Your task to perform on an android device: delete a single message in the gmail app Image 0: 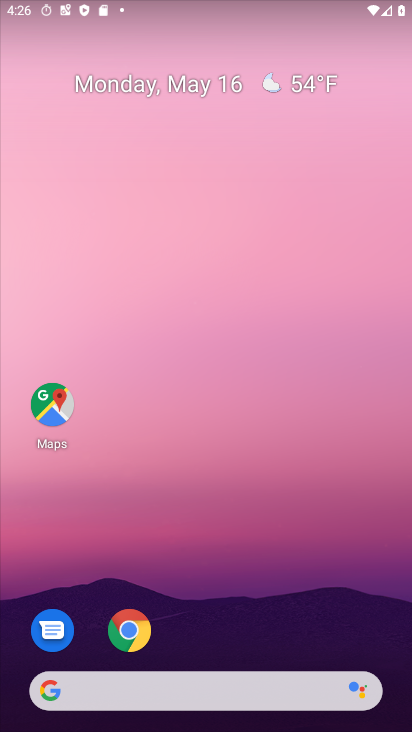
Step 0: drag from (226, 630) to (229, 143)
Your task to perform on an android device: delete a single message in the gmail app Image 1: 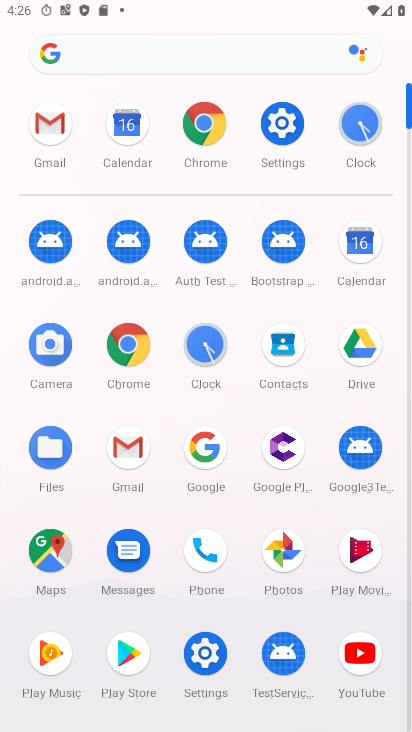
Step 1: click (43, 133)
Your task to perform on an android device: delete a single message in the gmail app Image 2: 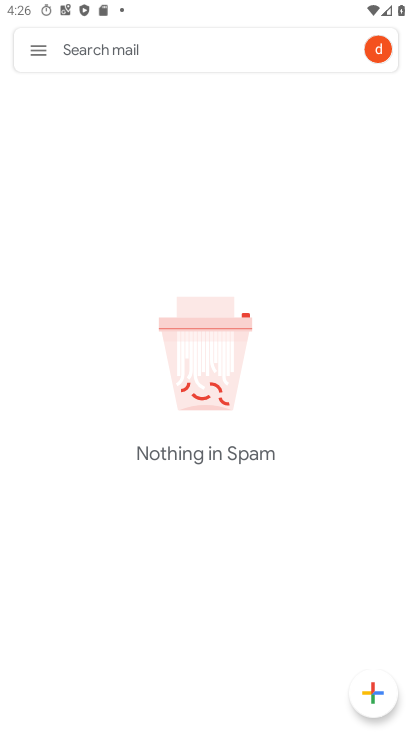
Step 2: task complete